Your task to perform on an android device: What's the weather going to be tomorrow? Image 0: 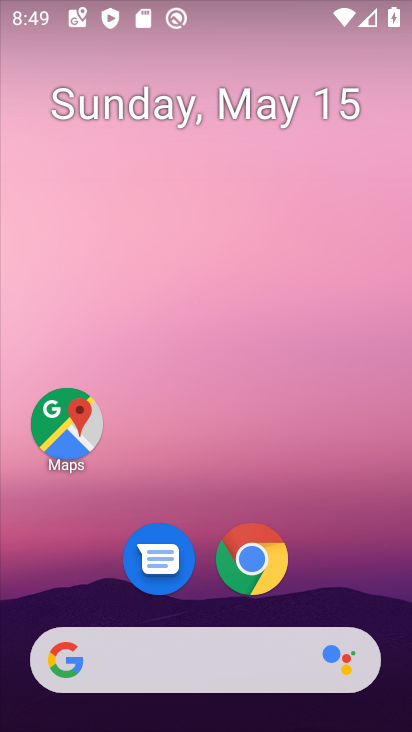
Step 0: drag from (370, 586) to (360, 466)
Your task to perform on an android device: What's the weather going to be tomorrow? Image 1: 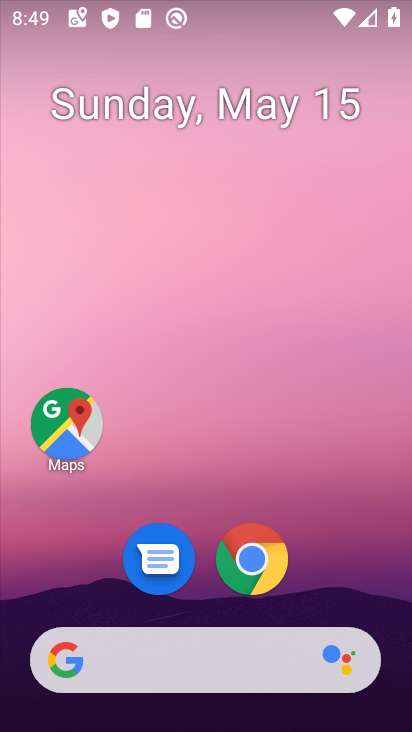
Step 1: click (211, 655)
Your task to perform on an android device: What's the weather going to be tomorrow? Image 2: 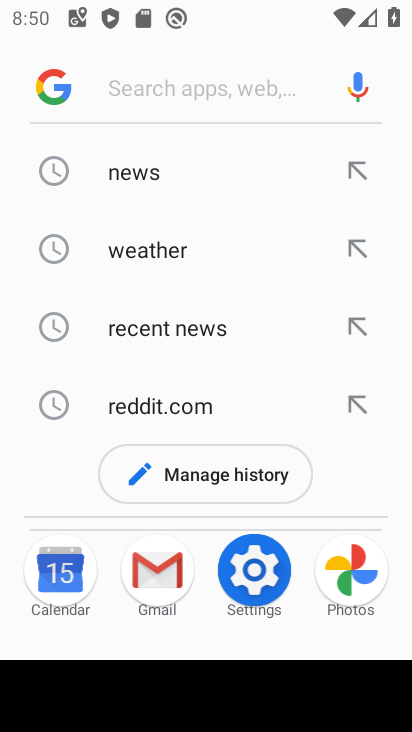
Step 2: click (165, 234)
Your task to perform on an android device: What's the weather going to be tomorrow? Image 3: 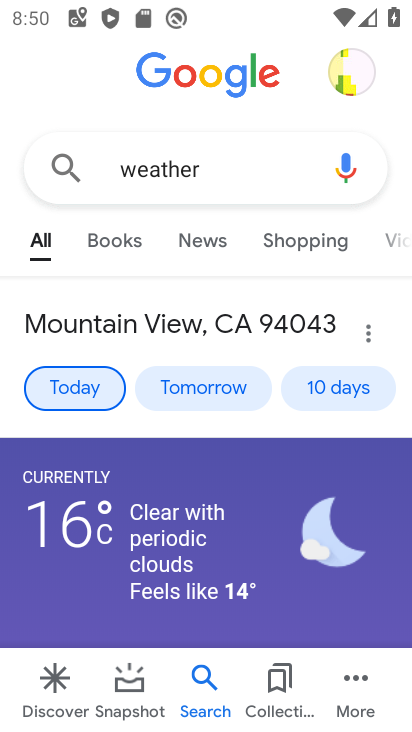
Step 3: click (195, 388)
Your task to perform on an android device: What's the weather going to be tomorrow? Image 4: 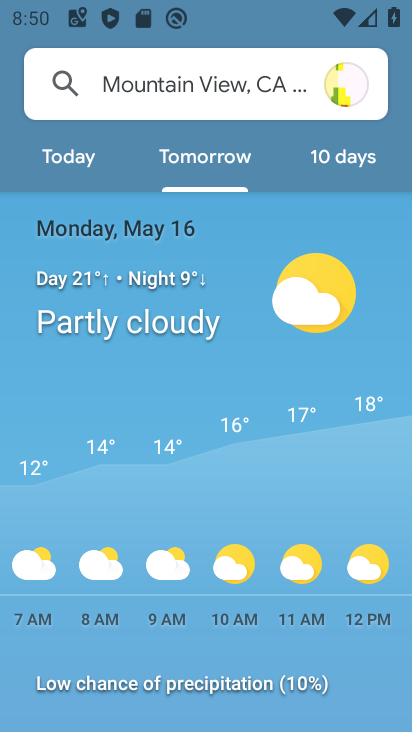
Step 4: task complete